Your task to perform on an android device: Go to sound settings Image 0: 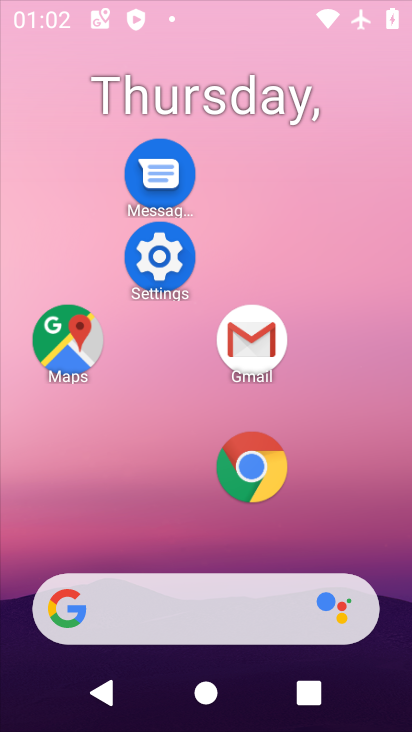
Step 0: drag from (395, 315) to (250, 163)
Your task to perform on an android device: Go to sound settings Image 1: 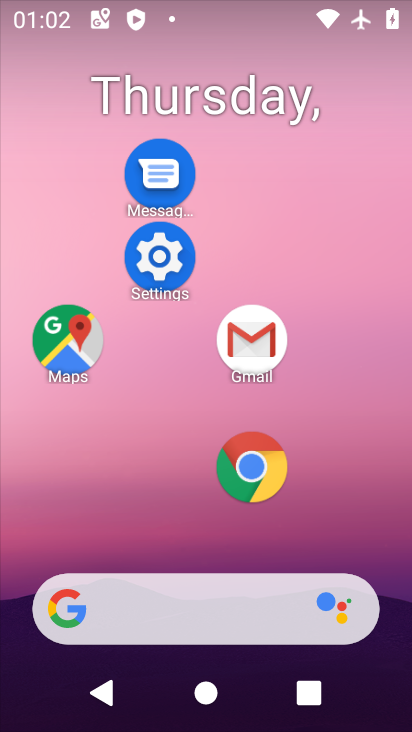
Step 1: drag from (205, 547) to (198, 219)
Your task to perform on an android device: Go to sound settings Image 2: 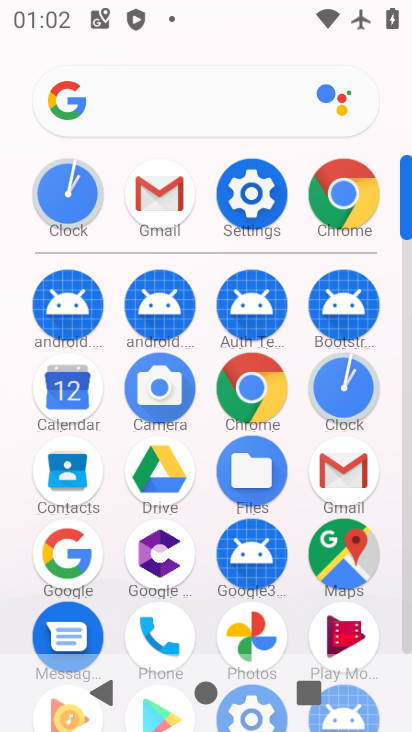
Step 2: click (266, 199)
Your task to perform on an android device: Go to sound settings Image 3: 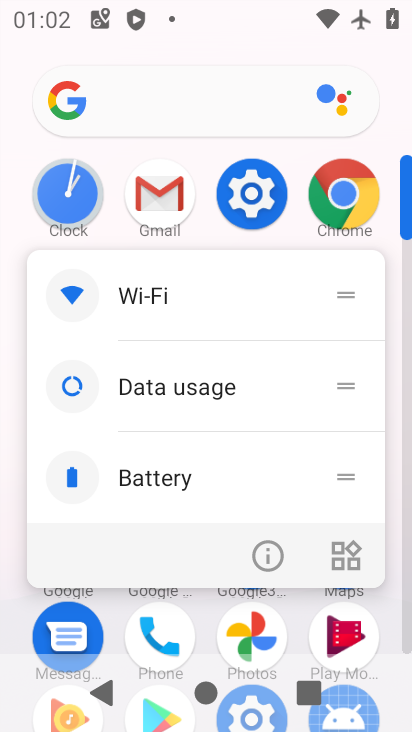
Step 3: click (268, 550)
Your task to perform on an android device: Go to sound settings Image 4: 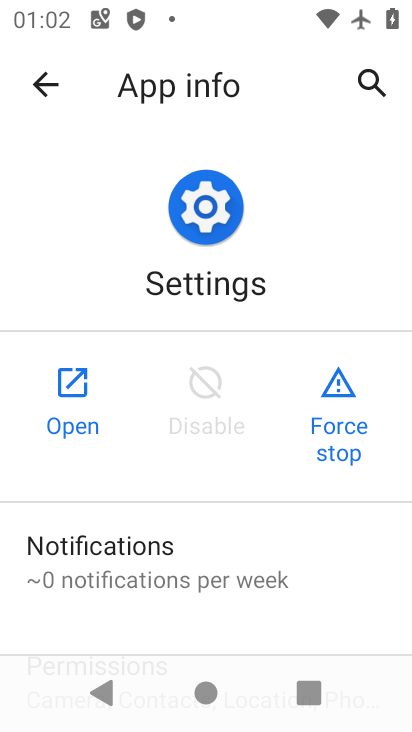
Step 4: click (72, 404)
Your task to perform on an android device: Go to sound settings Image 5: 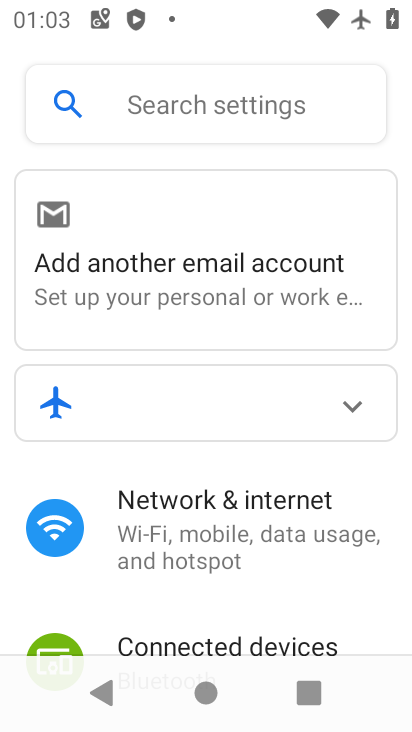
Step 5: drag from (141, 589) to (202, 340)
Your task to perform on an android device: Go to sound settings Image 6: 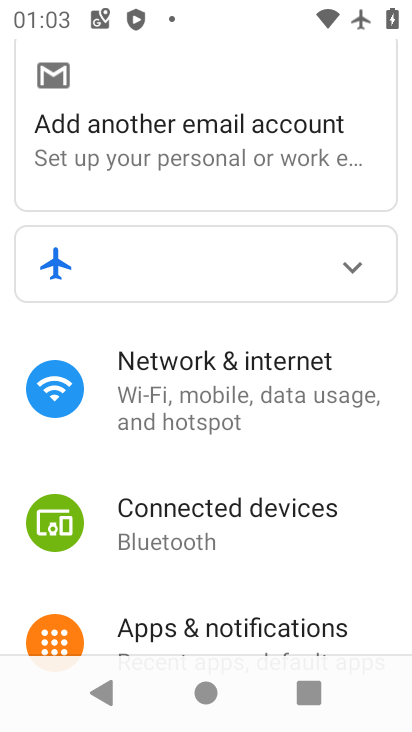
Step 6: drag from (203, 622) to (266, 270)
Your task to perform on an android device: Go to sound settings Image 7: 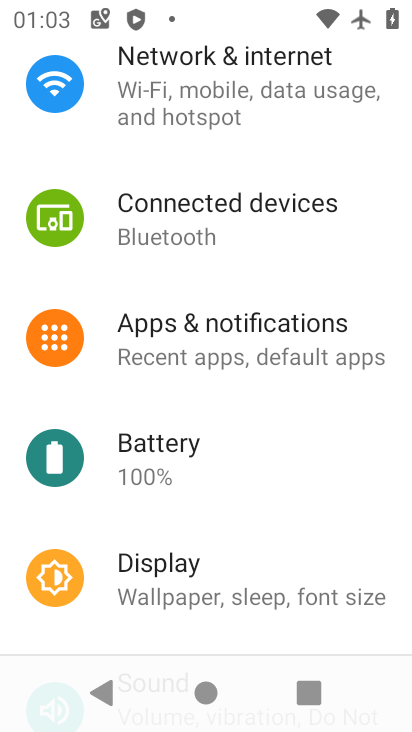
Step 7: drag from (263, 535) to (317, 233)
Your task to perform on an android device: Go to sound settings Image 8: 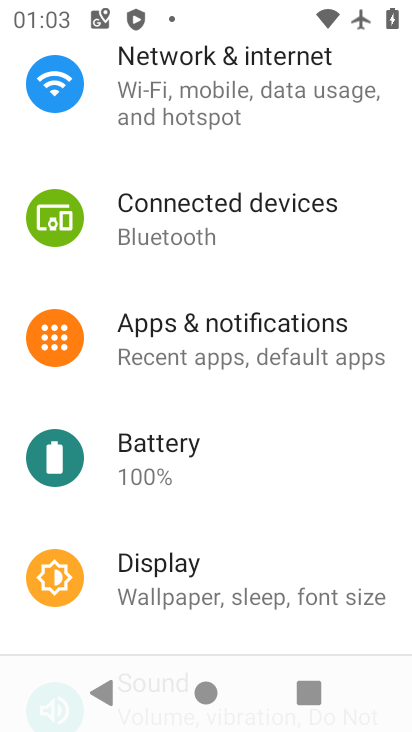
Step 8: drag from (252, 321) to (282, 202)
Your task to perform on an android device: Go to sound settings Image 9: 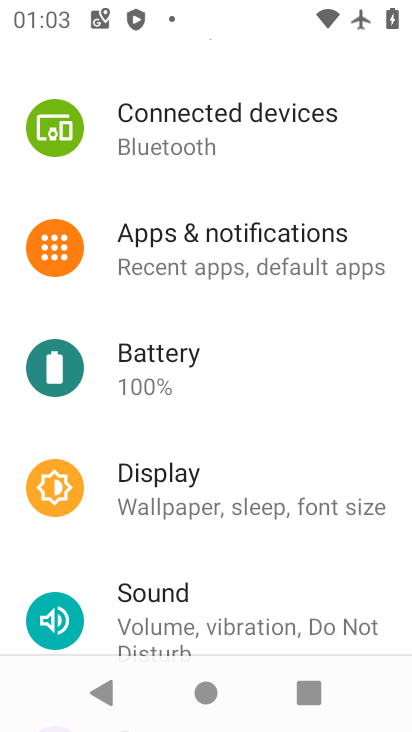
Step 9: drag from (223, 533) to (268, 199)
Your task to perform on an android device: Go to sound settings Image 10: 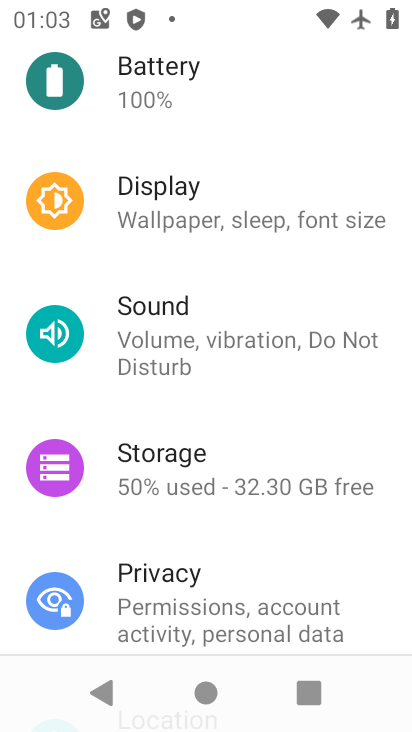
Step 10: click (192, 322)
Your task to perform on an android device: Go to sound settings Image 11: 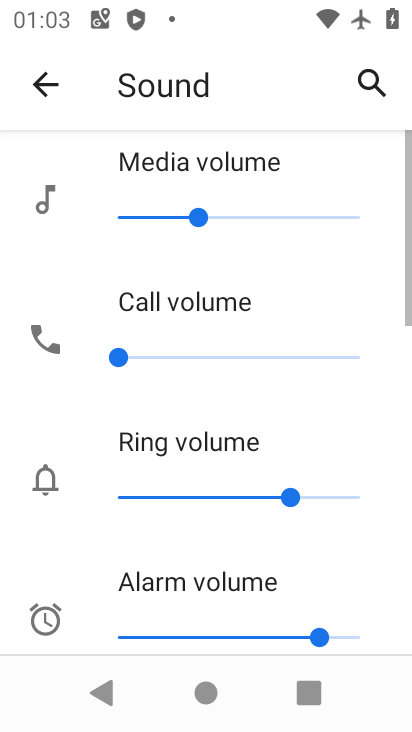
Step 11: task complete